Your task to perform on an android device: check out phone information Image 0: 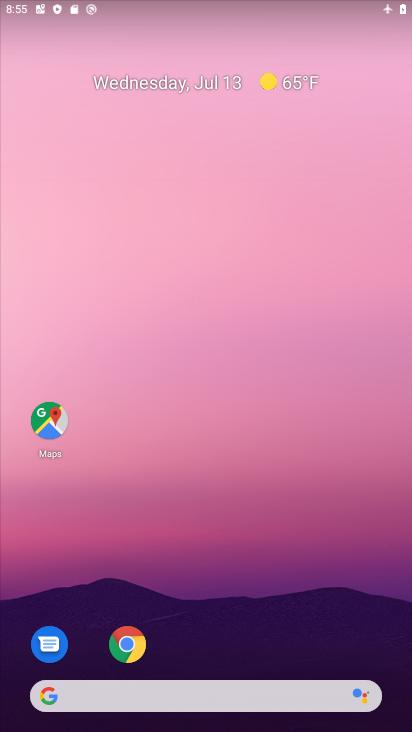
Step 0: drag from (309, 641) to (226, 277)
Your task to perform on an android device: check out phone information Image 1: 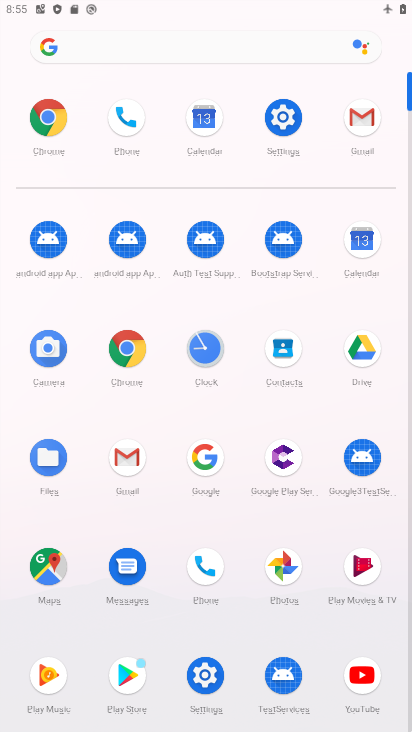
Step 1: click (274, 112)
Your task to perform on an android device: check out phone information Image 2: 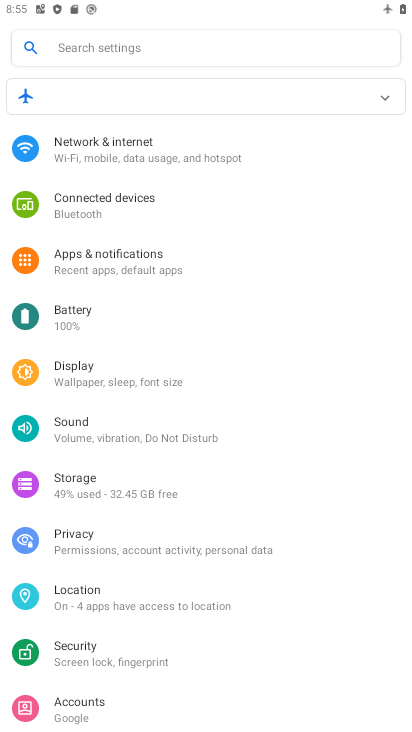
Step 2: drag from (146, 675) to (62, 269)
Your task to perform on an android device: check out phone information Image 3: 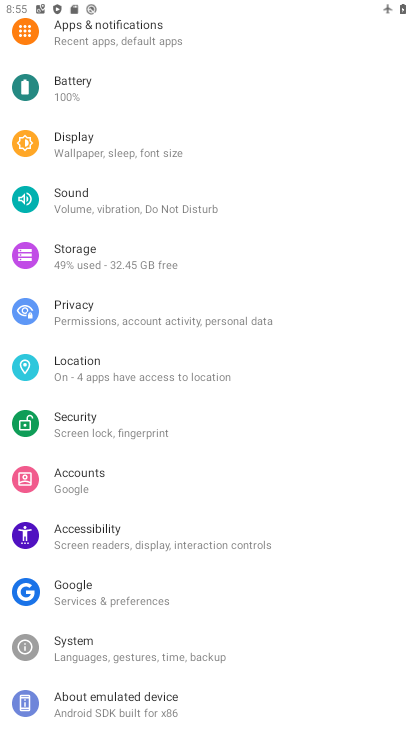
Step 3: drag from (96, 613) to (59, 268)
Your task to perform on an android device: check out phone information Image 4: 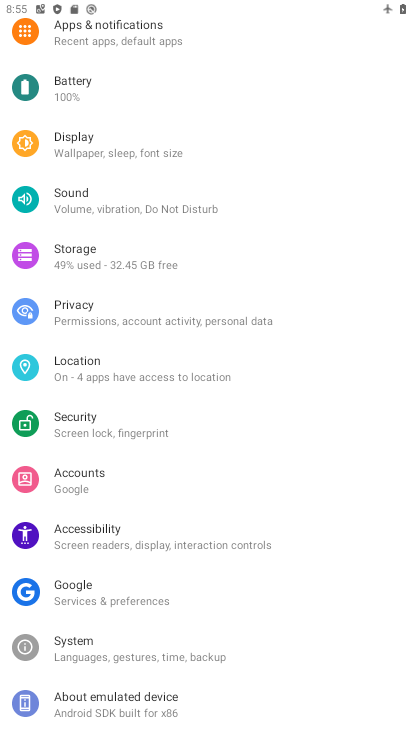
Step 4: click (74, 722)
Your task to perform on an android device: check out phone information Image 5: 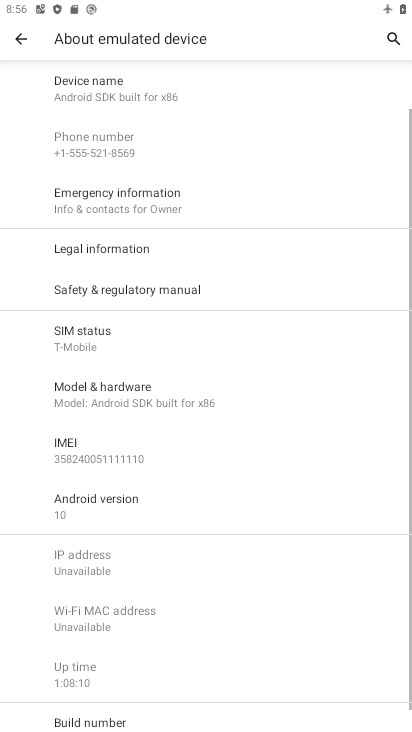
Step 5: task complete